Your task to perform on an android device: Go to CNN.com Image 0: 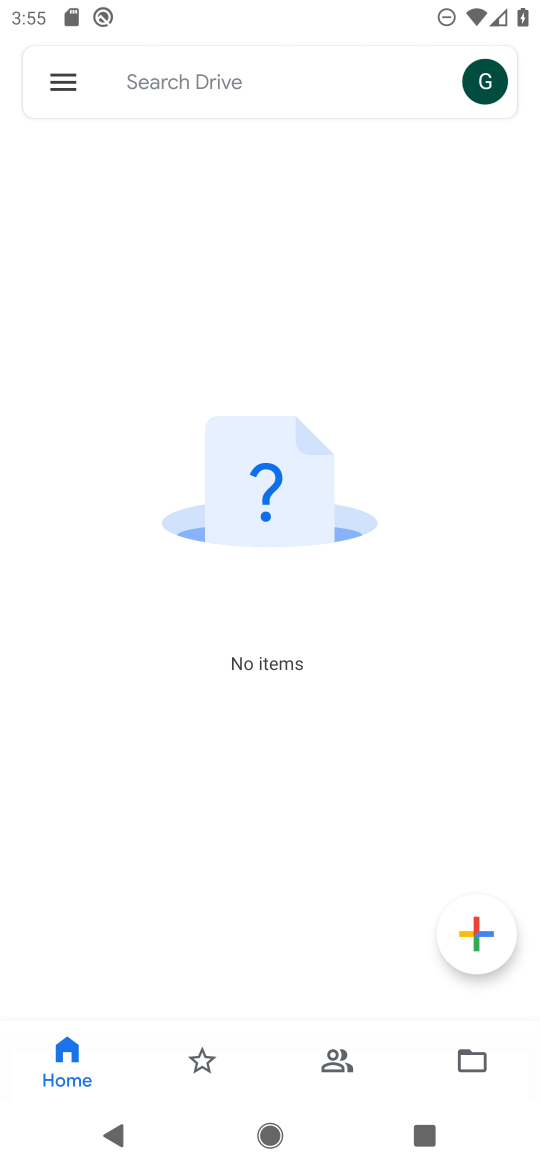
Step 0: press back button
Your task to perform on an android device: Go to CNN.com Image 1: 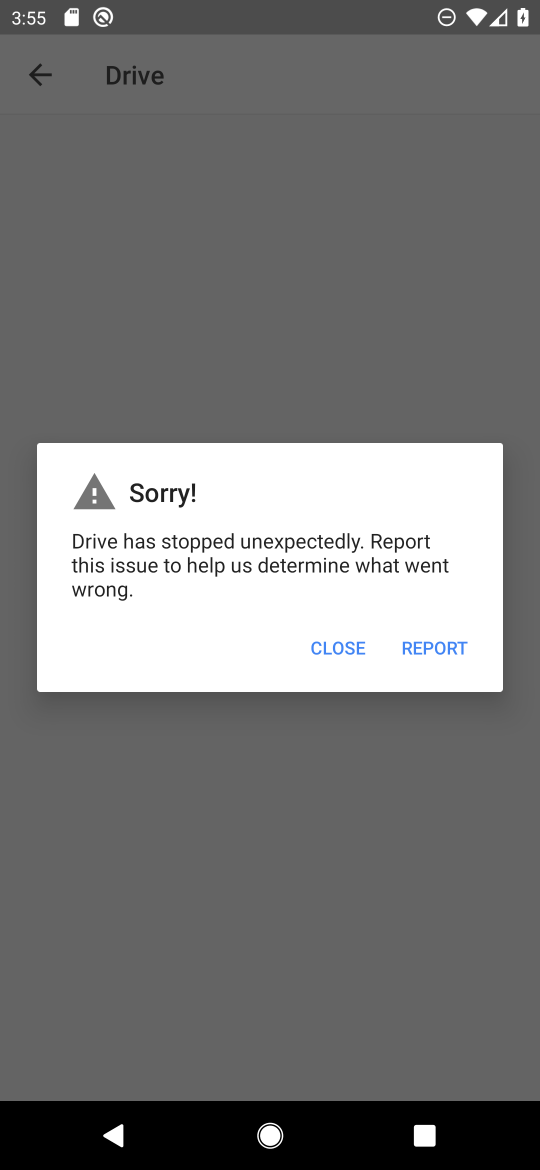
Step 1: press home button
Your task to perform on an android device: Go to CNN.com Image 2: 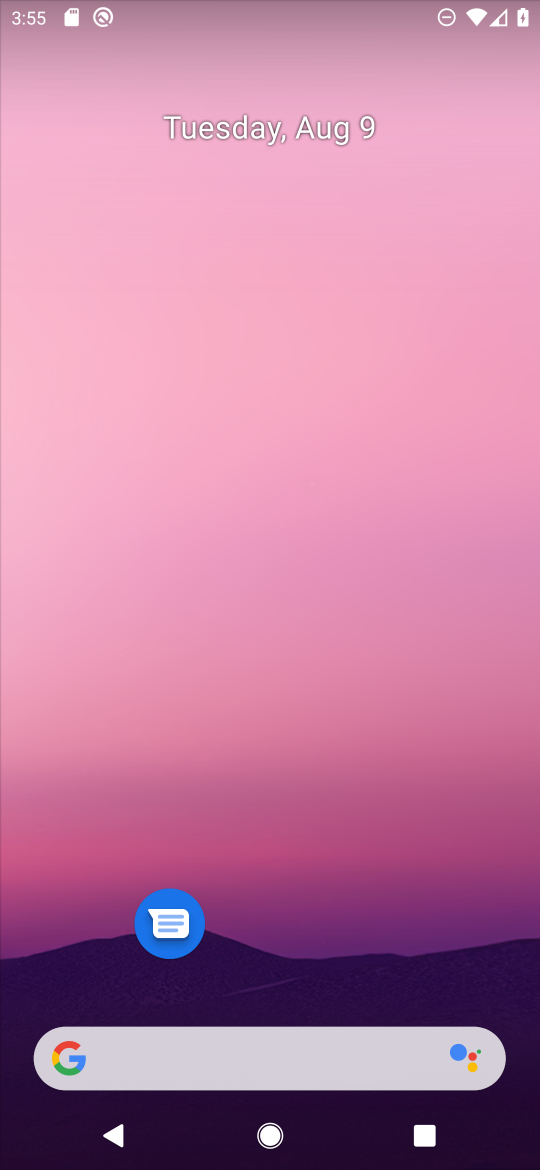
Step 2: drag from (285, 1022) to (365, 27)
Your task to perform on an android device: Go to CNN.com Image 3: 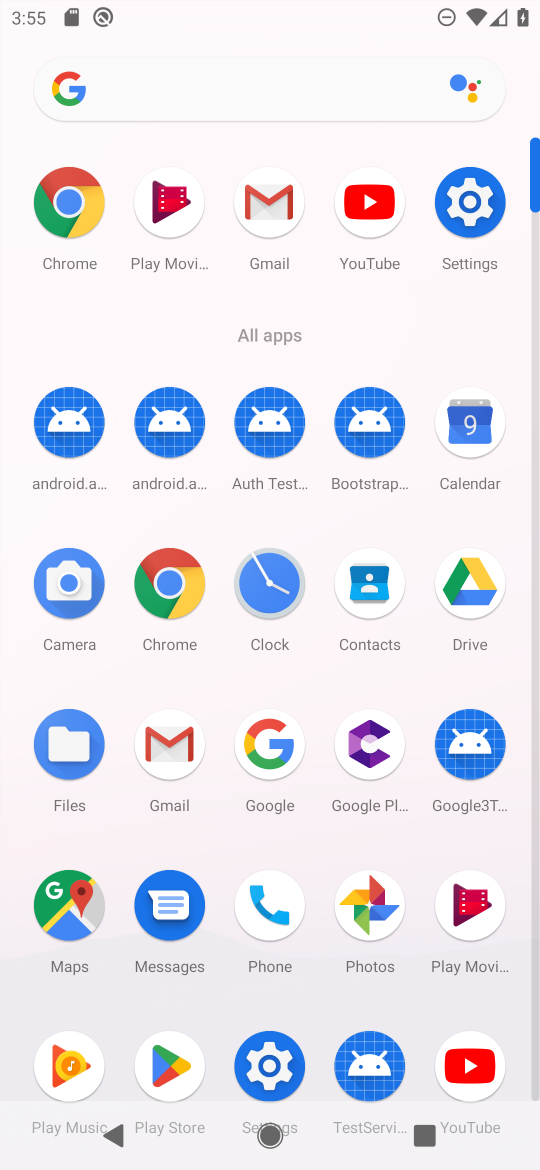
Step 3: click (79, 206)
Your task to perform on an android device: Go to CNN.com Image 4: 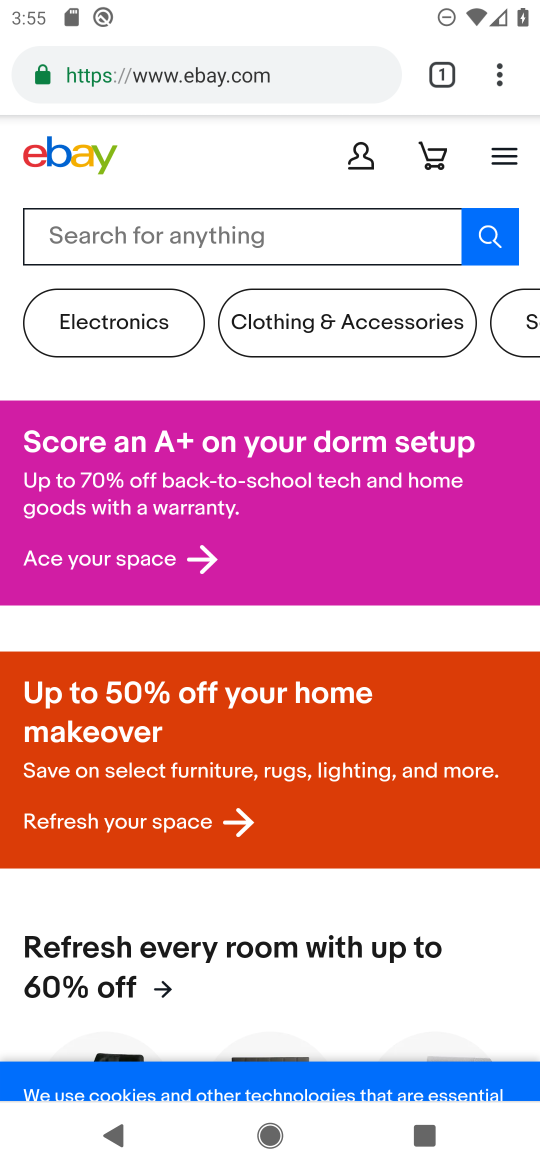
Step 4: click (455, 66)
Your task to perform on an android device: Go to CNN.com Image 5: 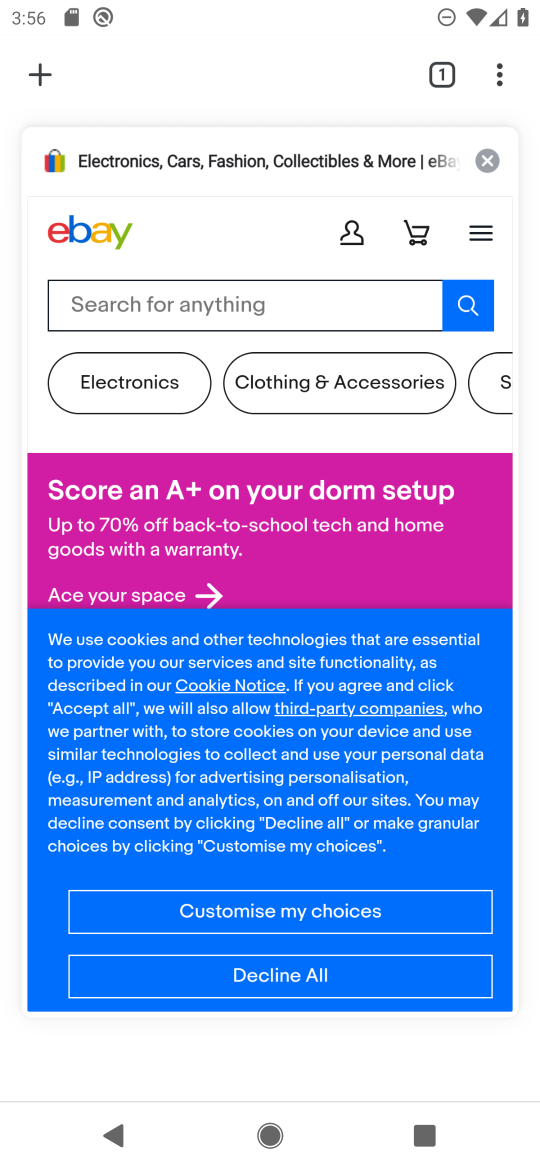
Step 5: click (28, 66)
Your task to perform on an android device: Go to CNN.com Image 6: 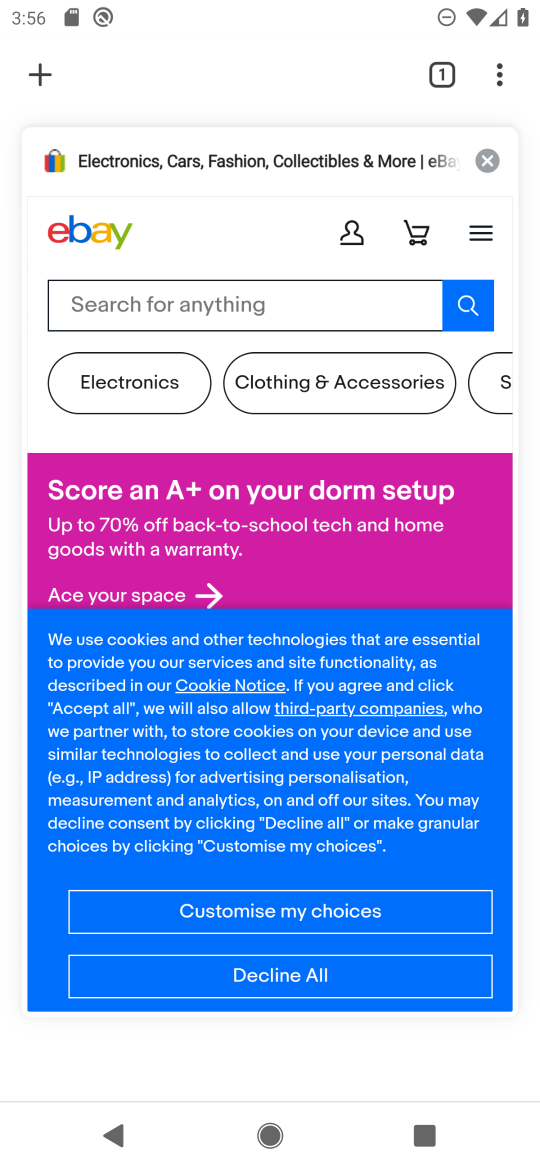
Step 6: click (46, 70)
Your task to perform on an android device: Go to CNN.com Image 7: 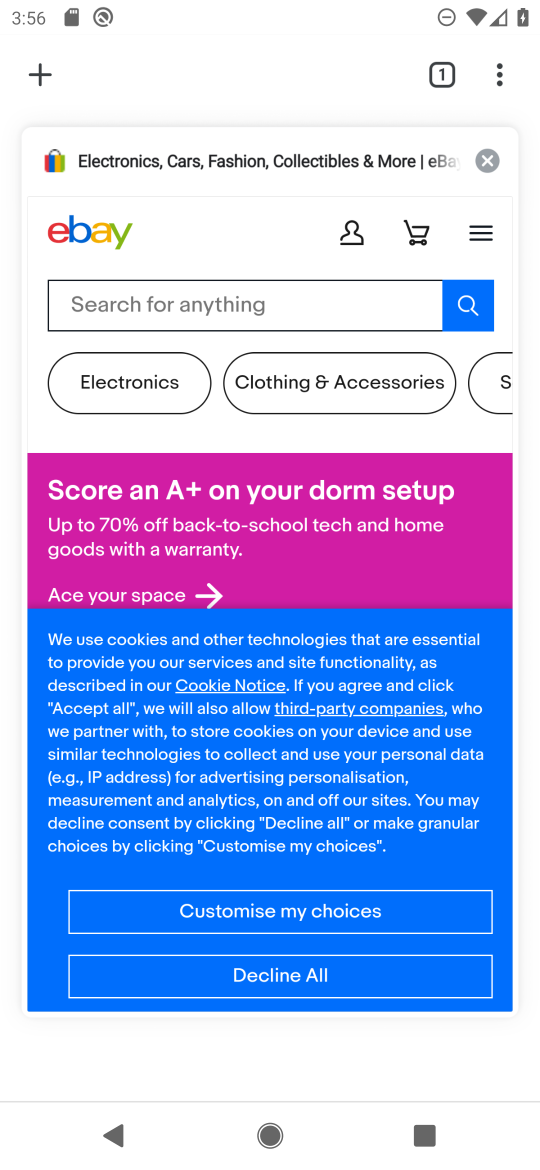
Step 7: click (35, 67)
Your task to perform on an android device: Go to CNN.com Image 8: 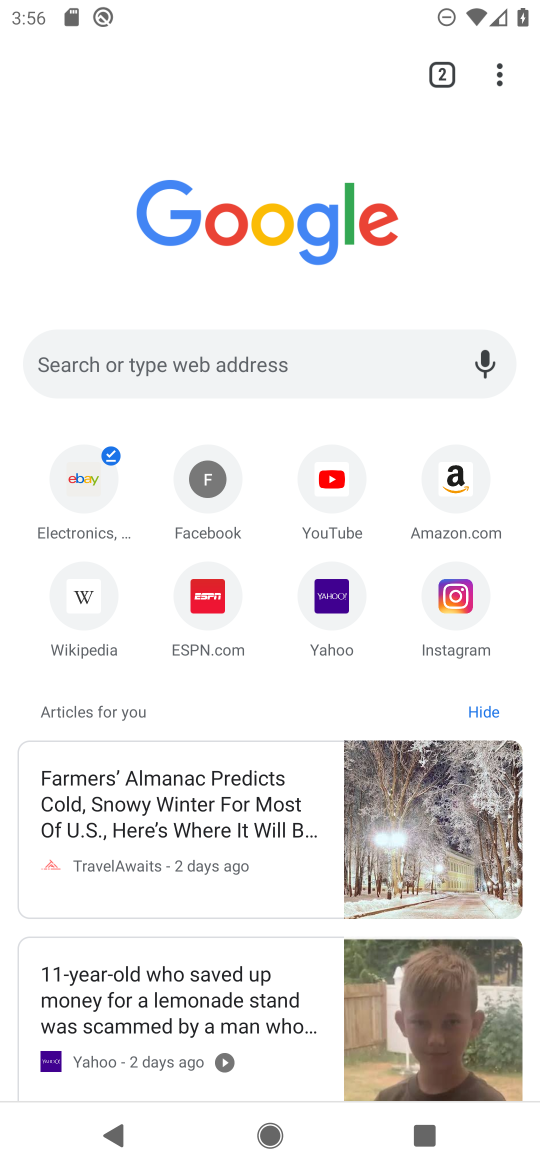
Step 8: click (191, 359)
Your task to perform on an android device: Go to CNN.com Image 9: 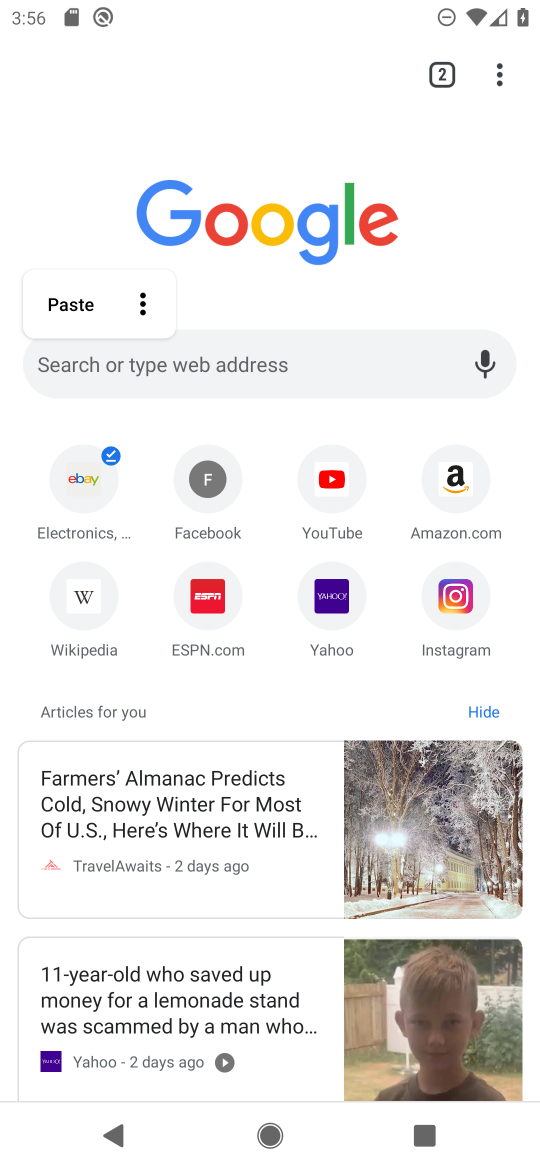
Step 9: type "cnn.com"
Your task to perform on an android device: Go to CNN.com Image 10: 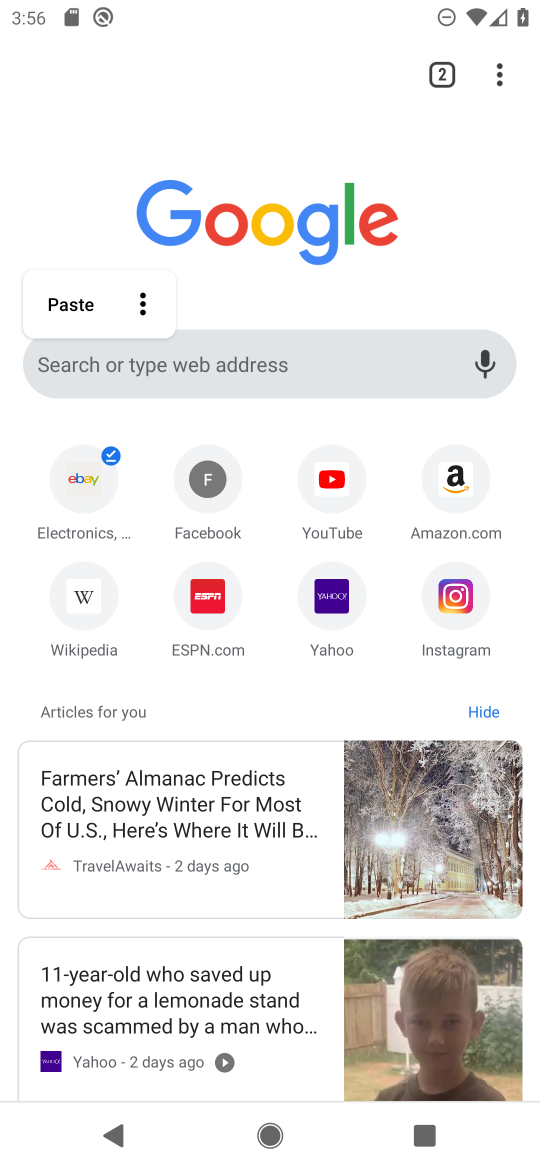
Step 10: click (276, 377)
Your task to perform on an android device: Go to CNN.com Image 11: 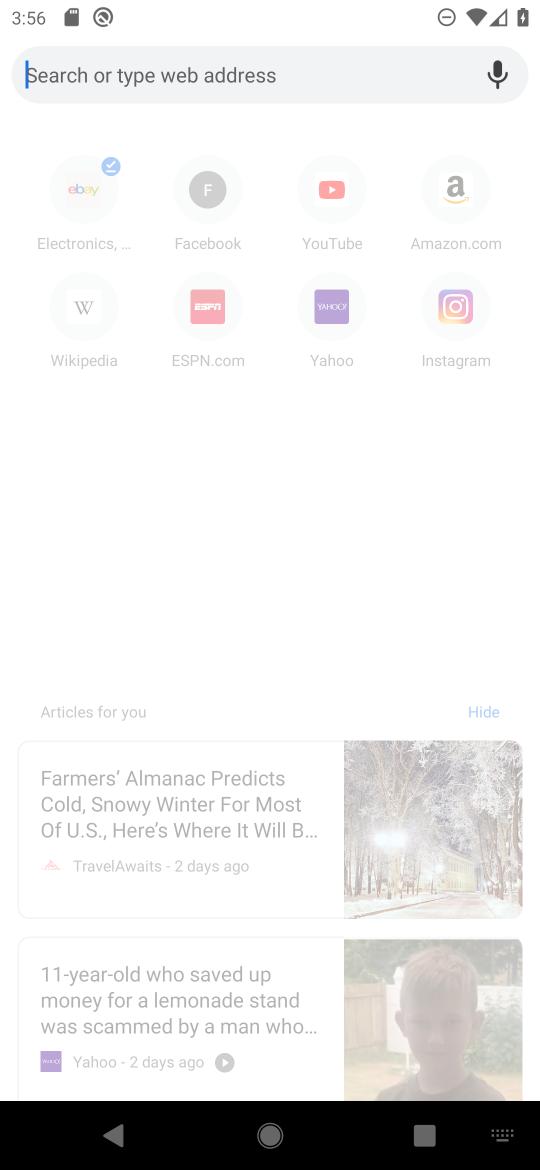
Step 11: click (148, 76)
Your task to perform on an android device: Go to CNN.com Image 12: 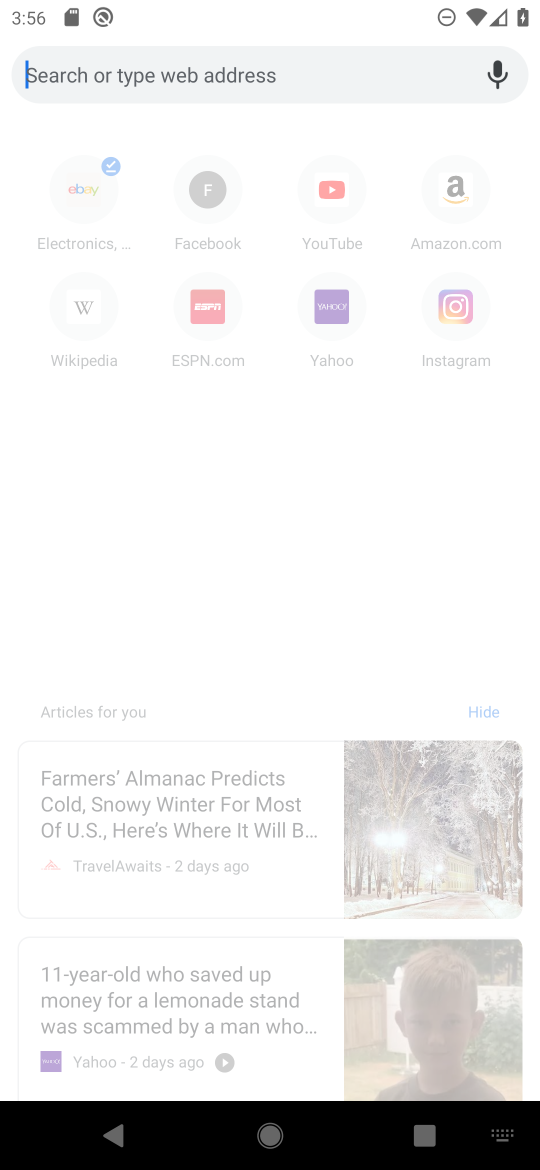
Step 12: click (132, 69)
Your task to perform on an android device: Go to CNN.com Image 13: 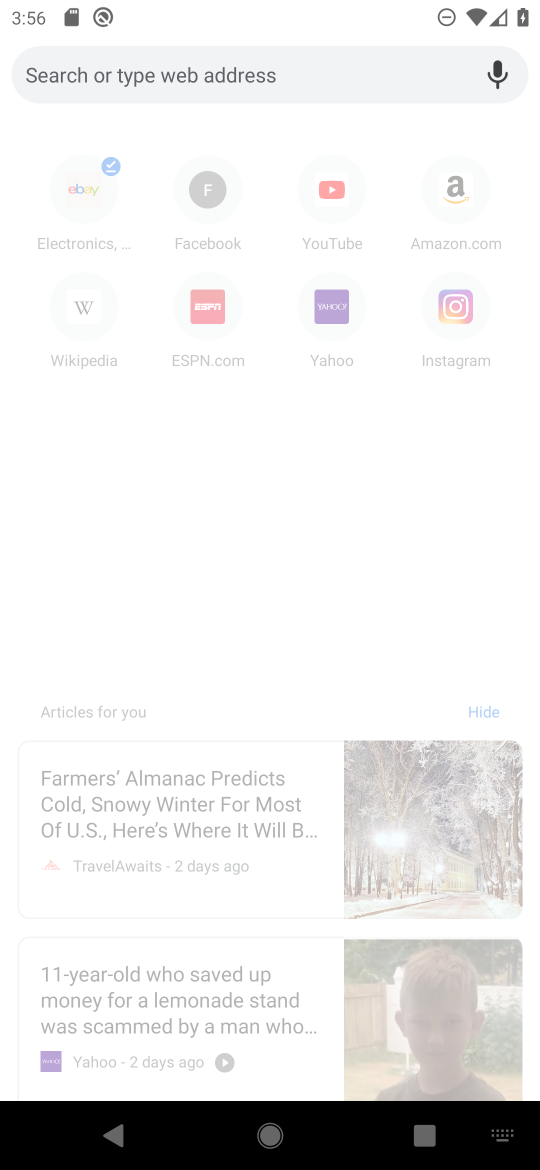
Step 13: type "cnn.com"
Your task to perform on an android device: Go to CNN.com Image 14: 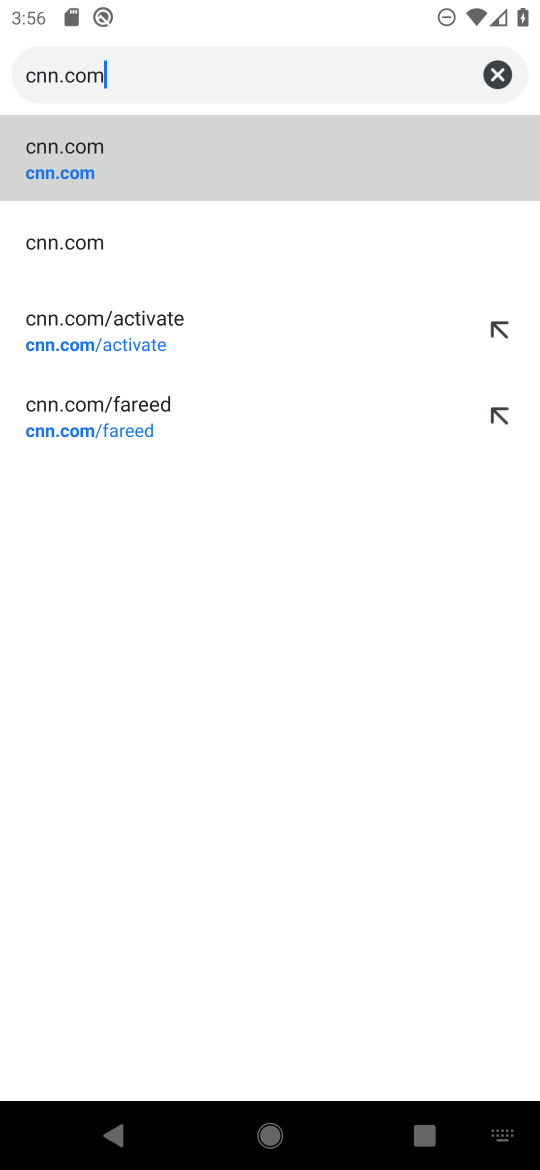
Step 14: type "c"
Your task to perform on an android device: Go to CNN.com Image 15: 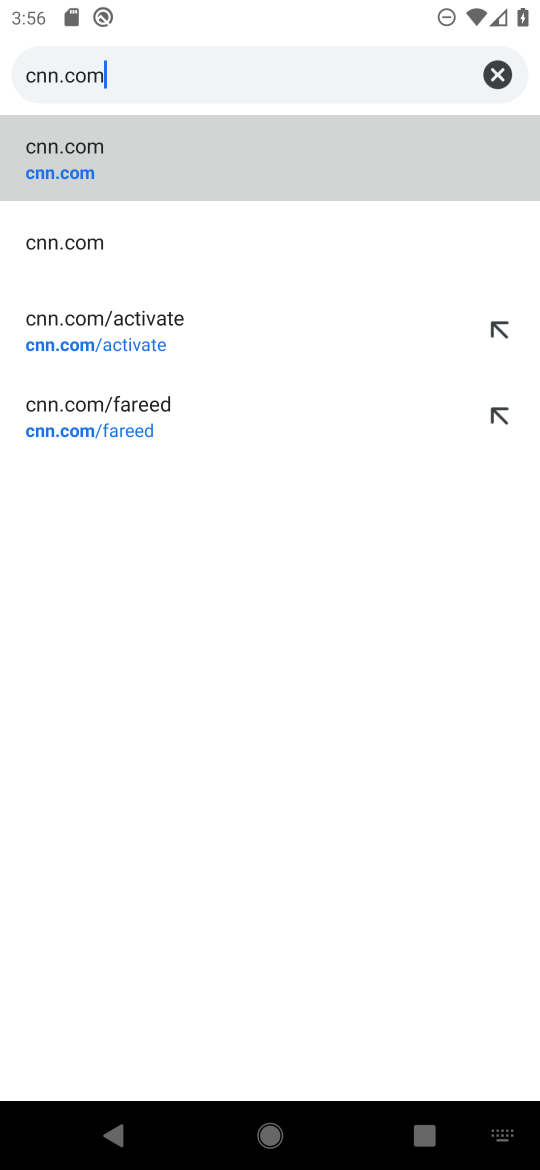
Step 15: click (224, 164)
Your task to perform on an android device: Go to CNN.com Image 16: 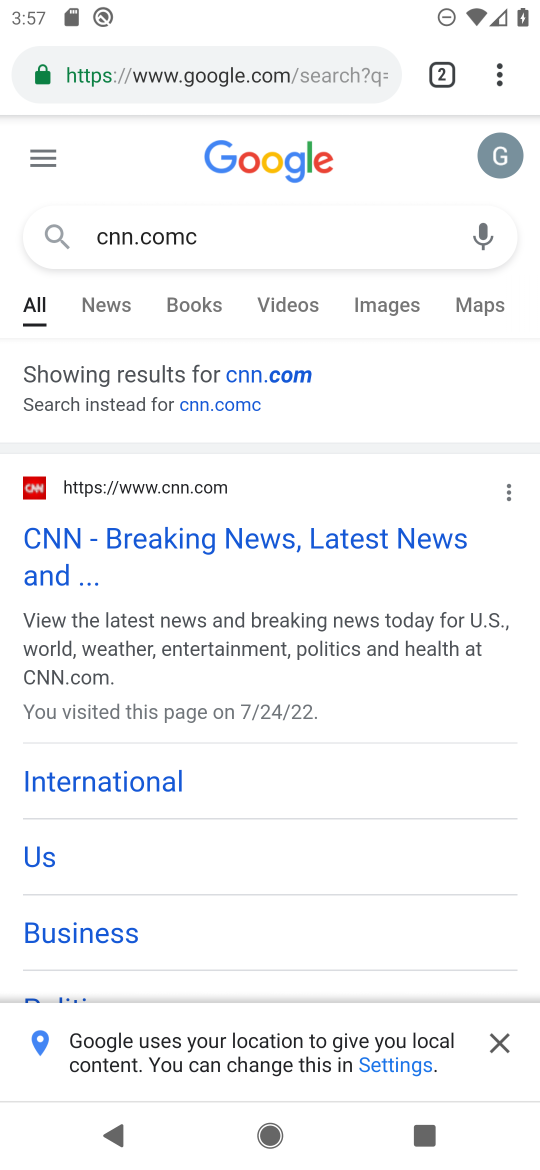
Step 16: click (154, 536)
Your task to perform on an android device: Go to CNN.com Image 17: 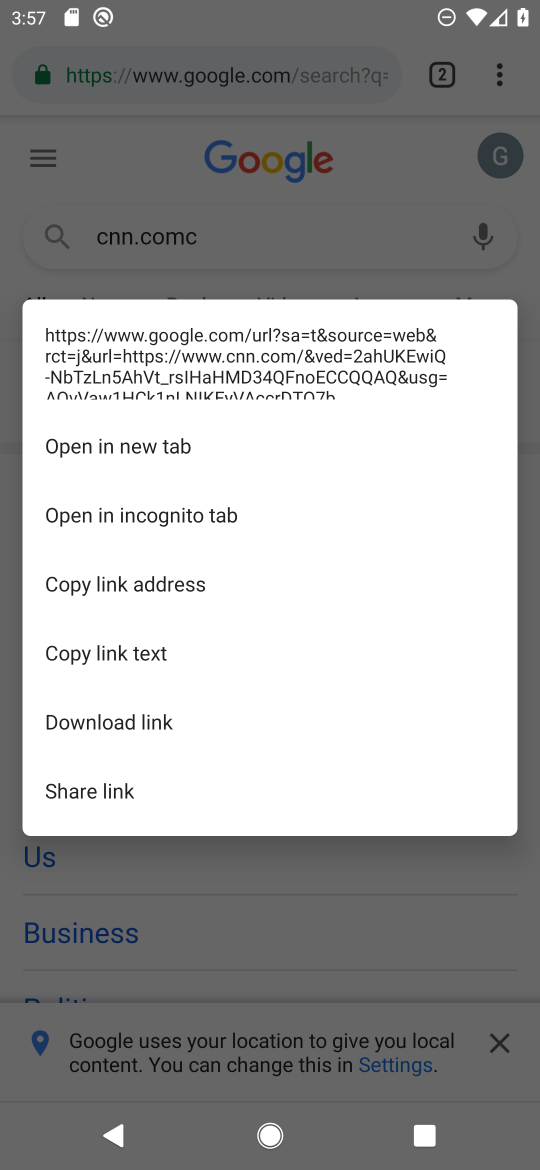
Step 17: click (150, 196)
Your task to perform on an android device: Go to CNN.com Image 18: 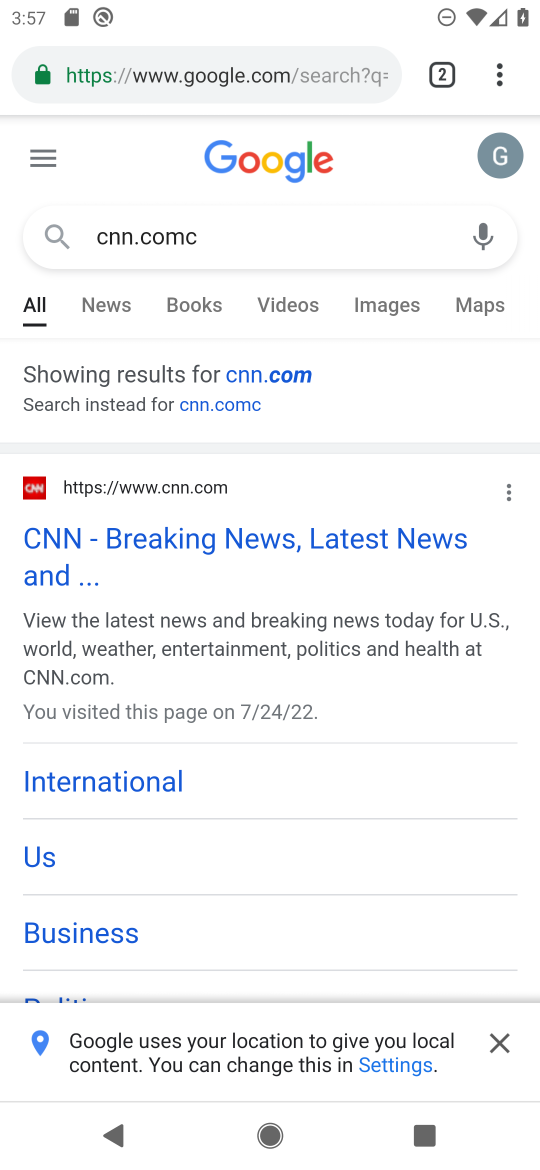
Step 18: click (148, 547)
Your task to perform on an android device: Go to CNN.com Image 19: 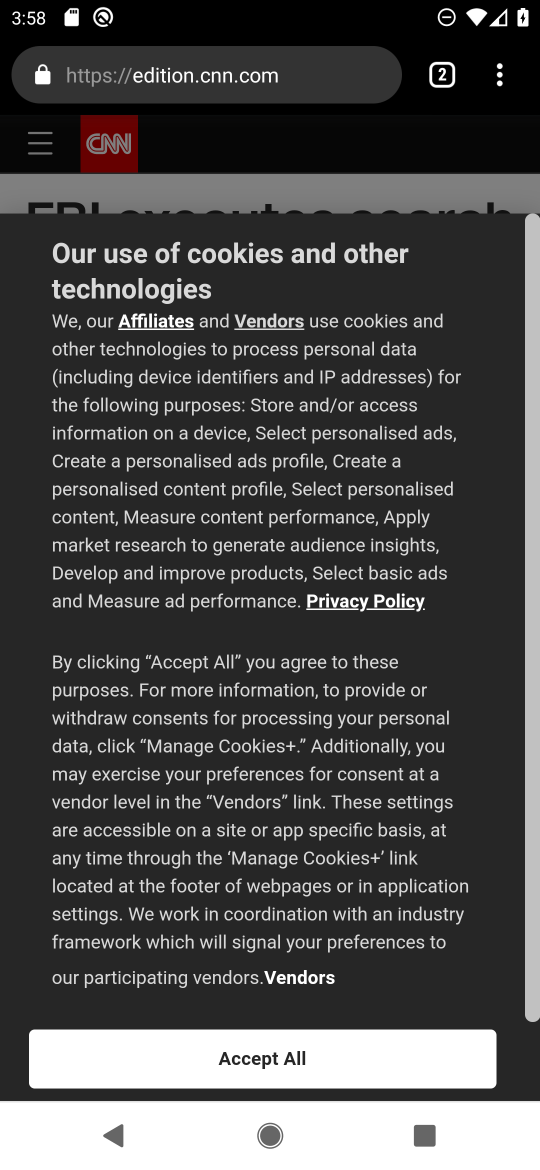
Step 19: task complete